Your task to perform on an android device: Open accessibility settings Image 0: 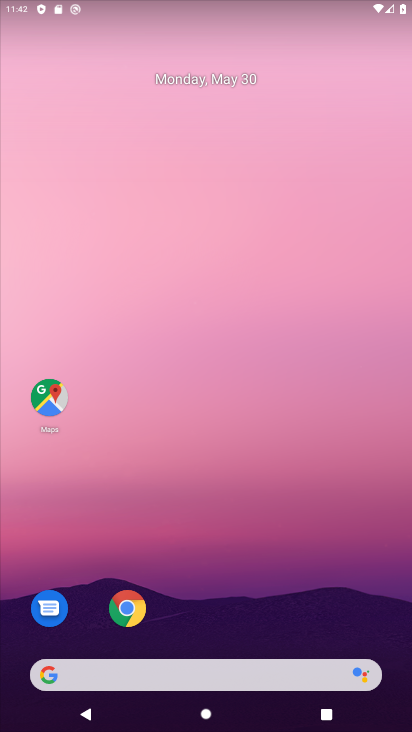
Step 0: drag from (178, 649) to (292, 71)
Your task to perform on an android device: Open accessibility settings Image 1: 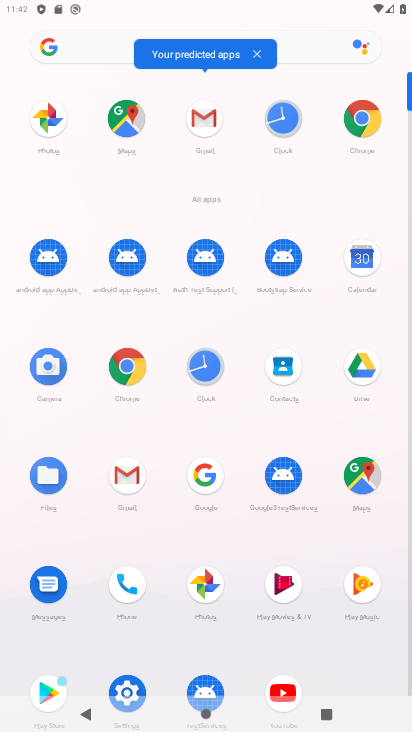
Step 1: drag from (213, 608) to (269, 312)
Your task to perform on an android device: Open accessibility settings Image 2: 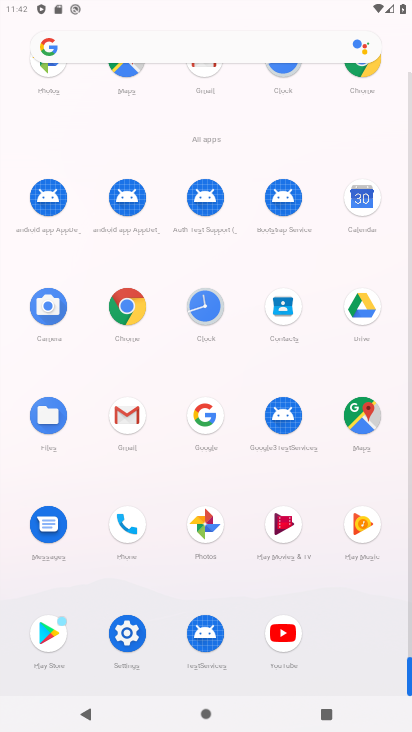
Step 2: click (139, 635)
Your task to perform on an android device: Open accessibility settings Image 3: 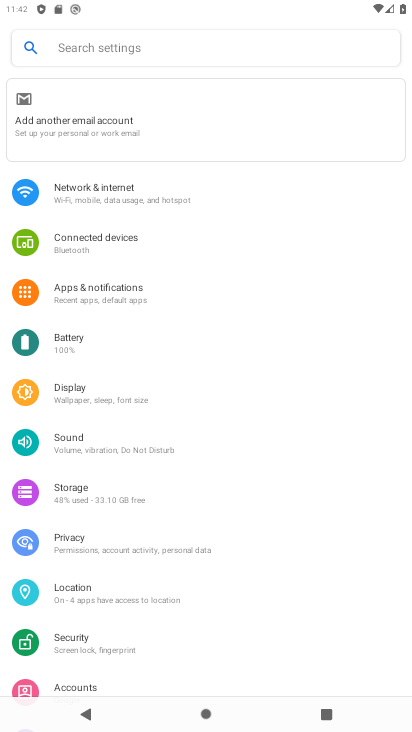
Step 3: drag from (146, 645) to (265, 209)
Your task to perform on an android device: Open accessibility settings Image 4: 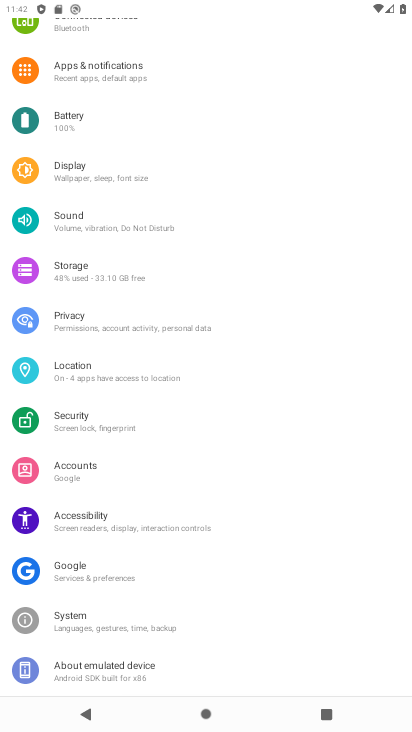
Step 4: click (181, 516)
Your task to perform on an android device: Open accessibility settings Image 5: 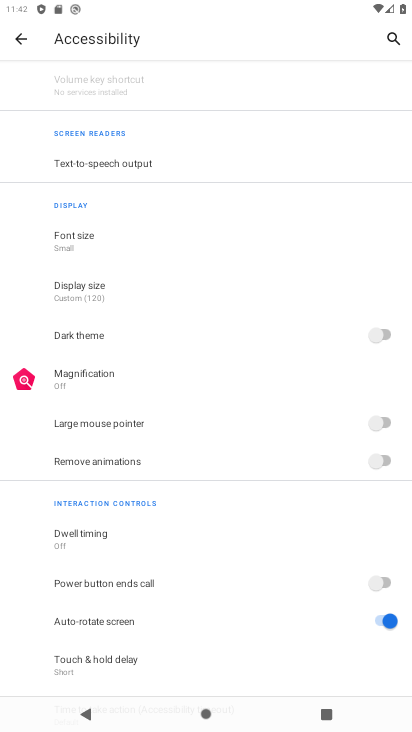
Step 5: task complete